Your task to perform on an android device: install app "Expedia: Hotels, Flights & Car" Image 0: 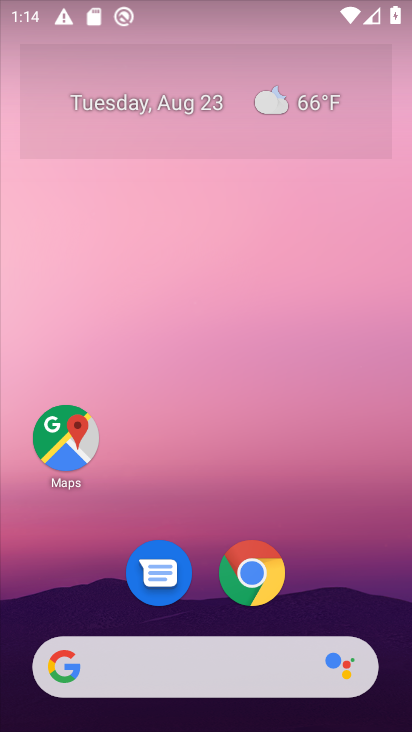
Step 0: drag from (232, 362) to (232, 34)
Your task to perform on an android device: install app "Expedia: Hotels, Flights & Car" Image 1: 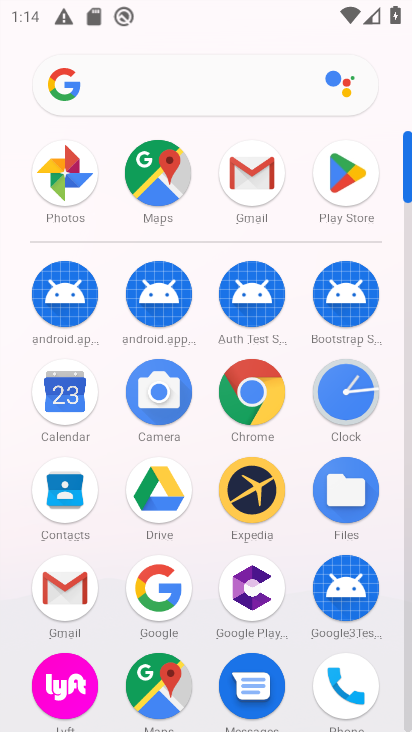
Step 1: click (337, 167)
Your task to perform on an android device: install app "Expedia: Hotels, Flights & Car" Image 2: 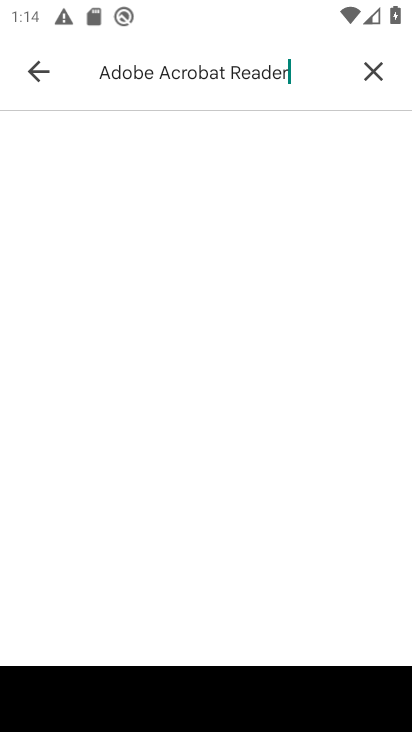
Step 2: click (384, 68)
Your task to perform on an android device: install app "Expedia: Hotels, Flights & Car" Image 3: 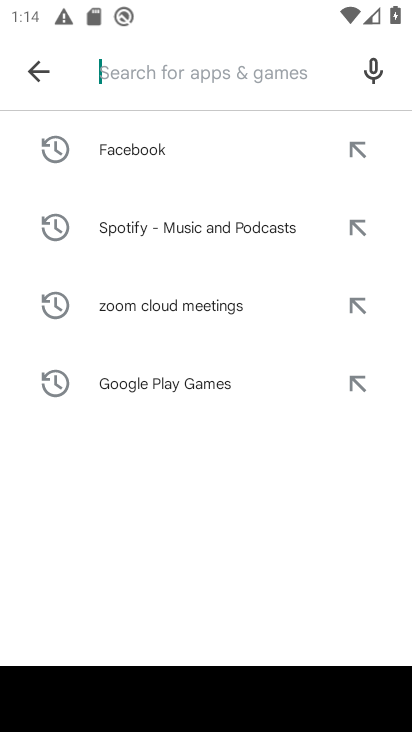
Step 3: type "Expedia: Hotels, Flights & Car"
Your task to perform on an android device: install app "Expedia: Hotels, Flights & Car" Image 4: 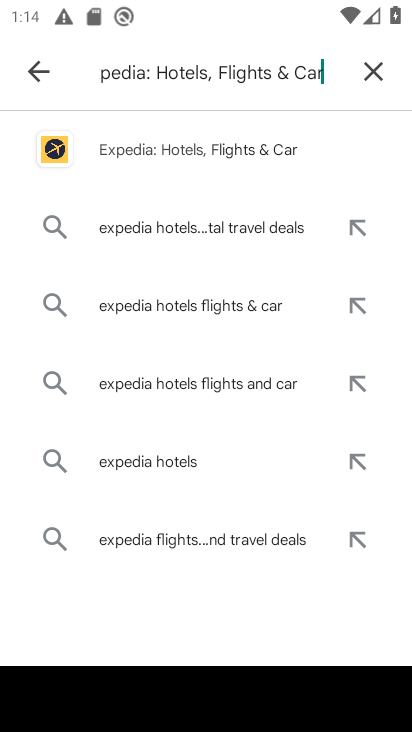
Step 4: type ""
Your task to perform on an android device: install app "Expedia: Hotels, Flights & Car" Image 5: 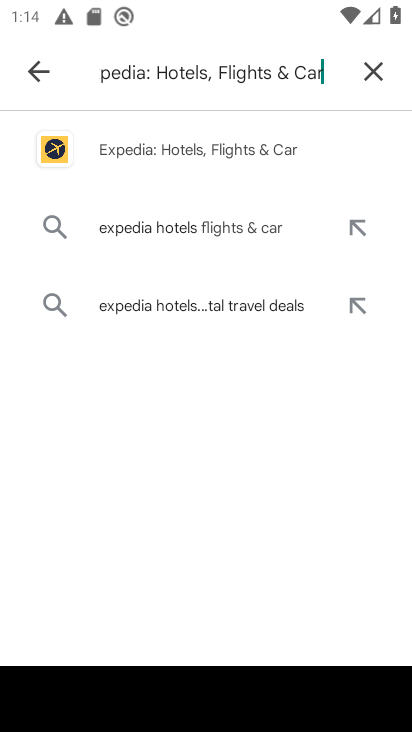
Step 5: click (179, 149)
Your task to perform on an android device: install app "Expedia: Hotels, Flights & Car" Image 6: 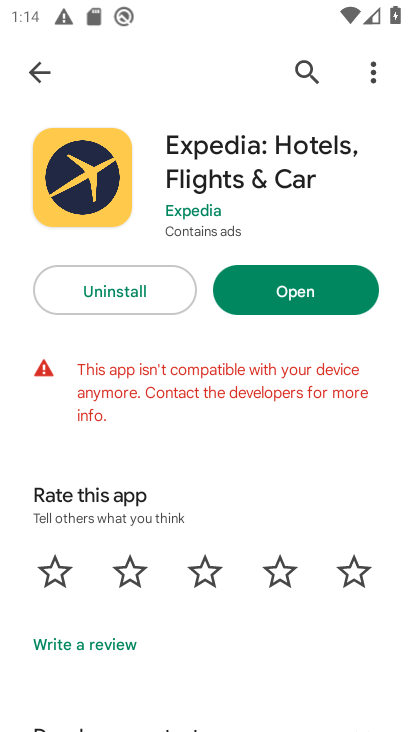
Step 6: task complete